Your task to perform on an android device: Open maps Image 0: 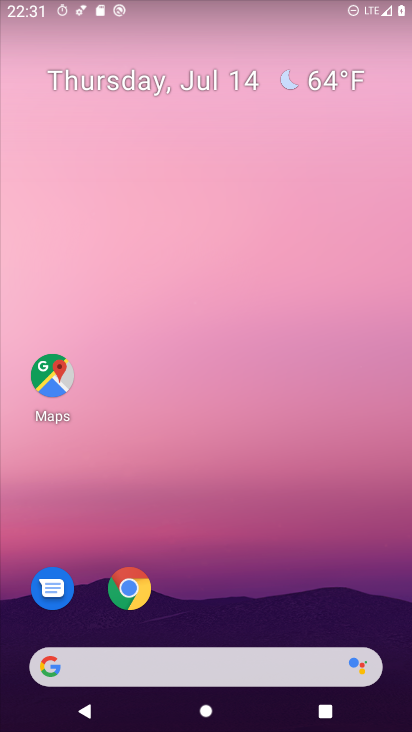
Step 0: drag from (319, 567) to (335, 144)
Your task to perform on an android device: Open maps Image 1: 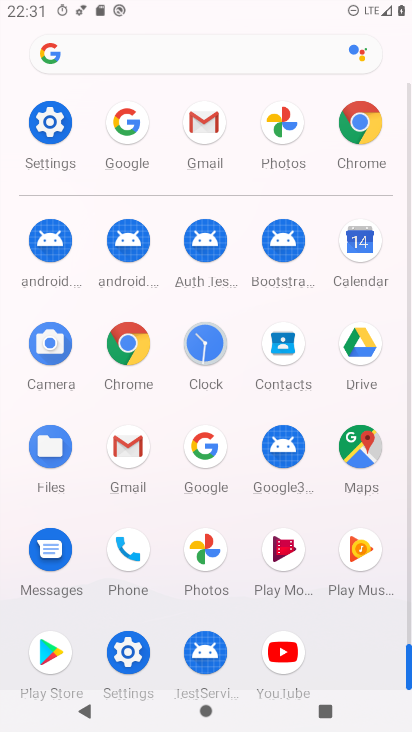
Step 1: click (360, 453)
Your task to perform on an android device: Open maps Image 2: 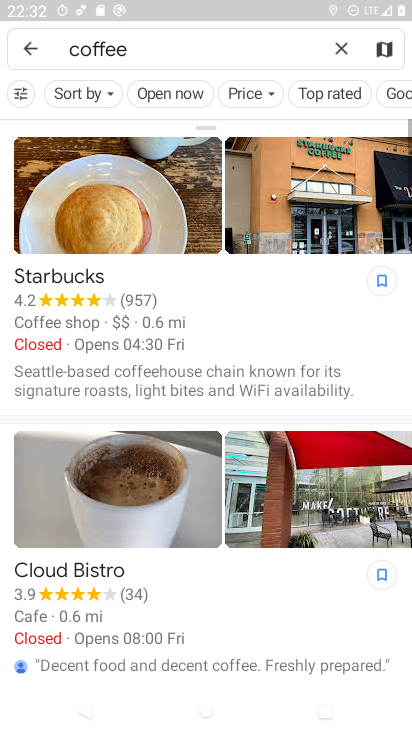
Step 2: task complete